Your task to perform on an android device: Open Google Maps and go to "Timeline" Image 0: 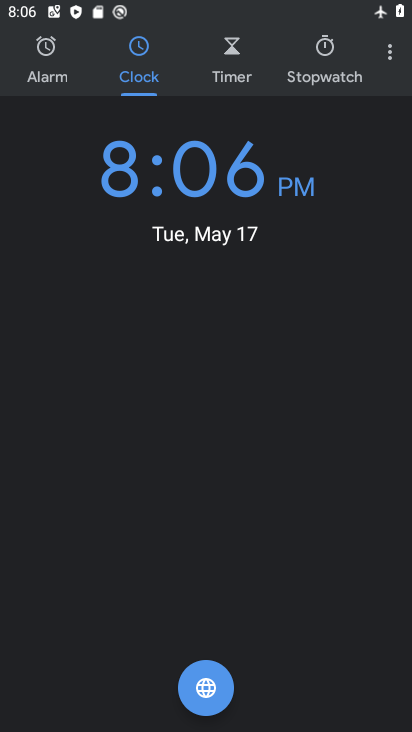
Step 0: press home button
Your task to perform on an android device: Open Google Maps and go to "Timeline" Image 1: 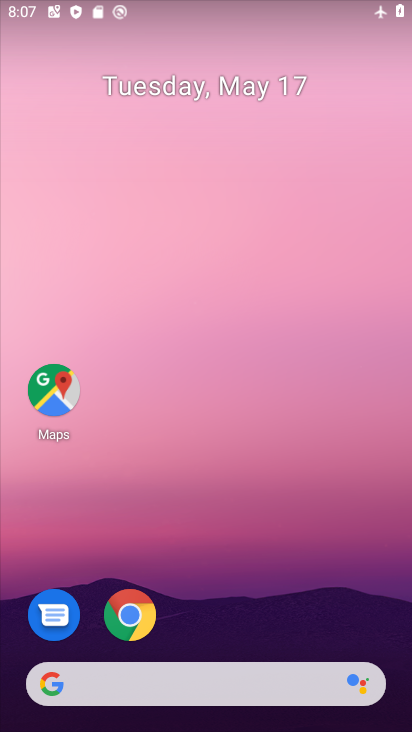
Step 1: click (50, 389)
Your task to perform on an android device: Open Google Maps and go to "Timeline" Image 2: 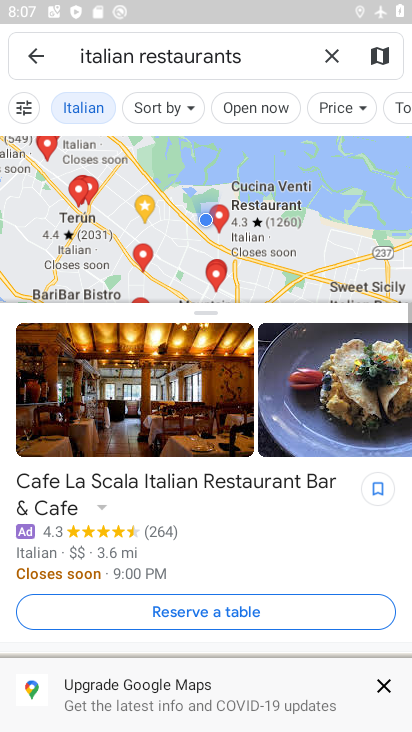
Step 2: click (344, 58)
Your task to perform on an android device: Open Google Maps and go to "Timeline" Image 3: 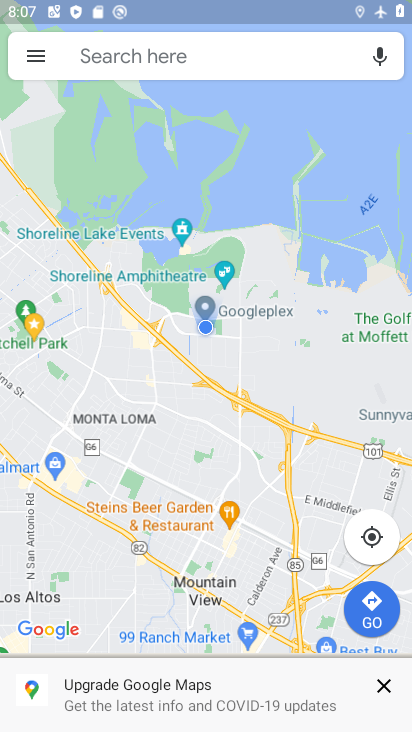
Step 3: click (31, 61)
Your task to perform on an android device: Open Google Maps and go to "Timeline" Image 4: 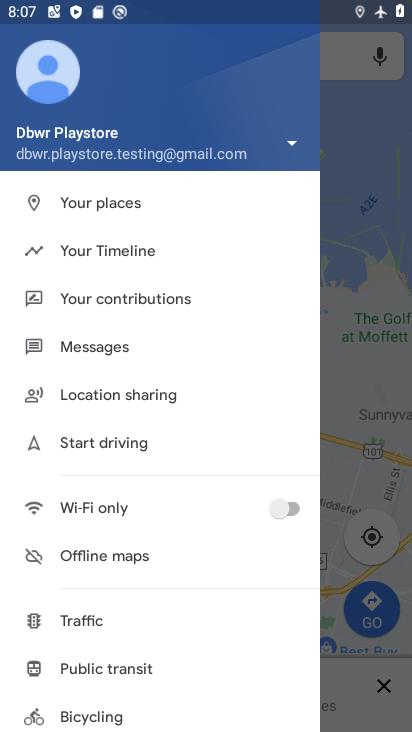
Step 4: click (114, 254)
Your task to perform on an android device: Open Google Maps and go to "Timeline" Image 5: 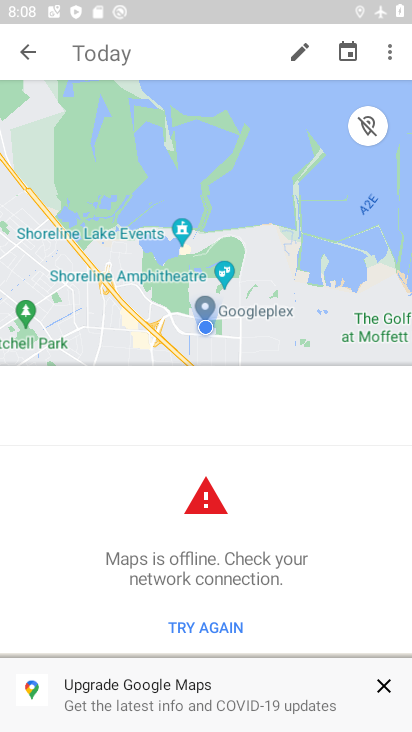
Step 5: click (376, 692)
Your task to perform on an android device: Open Google Maps and go to "Timeline" Image 6: 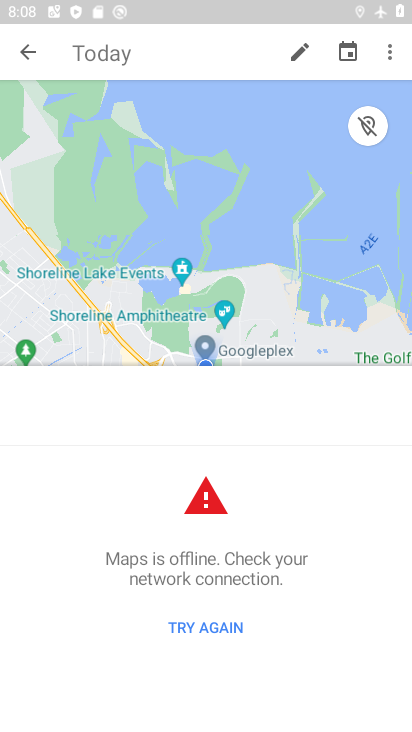
Step 6: task complete